Your task to perform on an android device: Open battery settings Image 0: 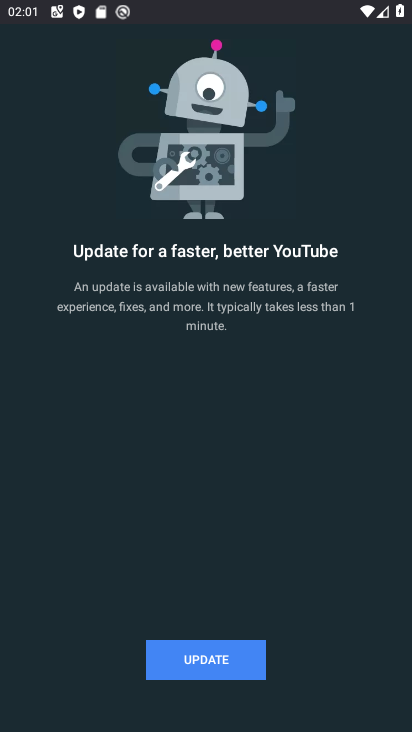
Step 0: press home button
Your task to perform on an android device: Open battery settings Image 1: 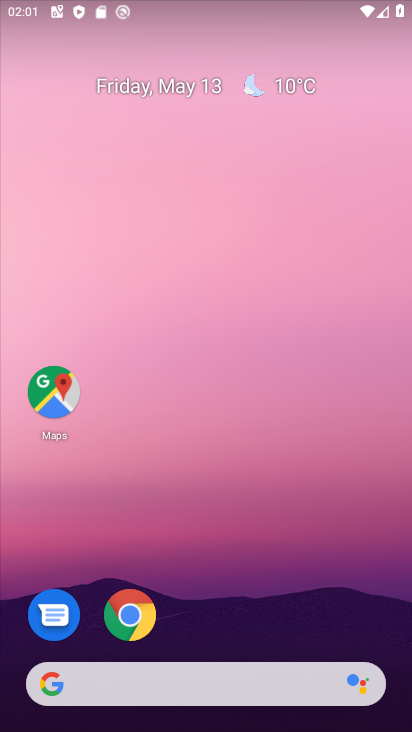
Step 1: drag from (213, 536) to (31, 128)
Your task to perform on an android device: Open battery settings Image 2: 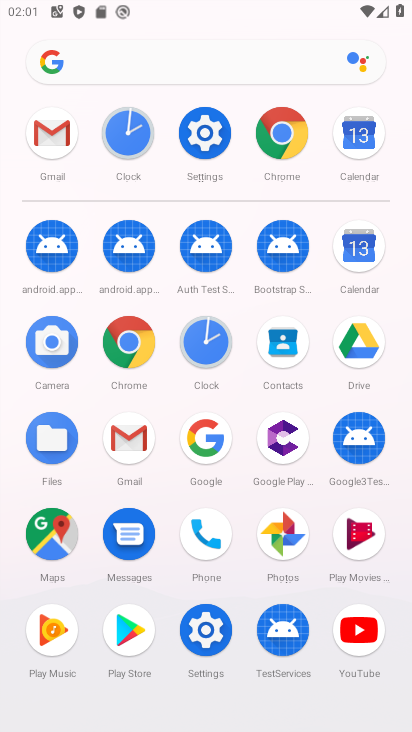
Step 2: click (221, 133)
Your task to perform on an android device: Open battery settings Image 3: 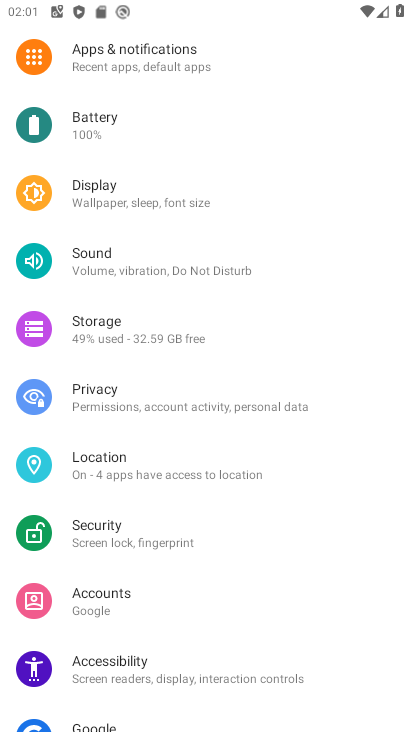
Step 3: click (110, 132)
Your task to perform on an android device: Open battery settings Image 4: 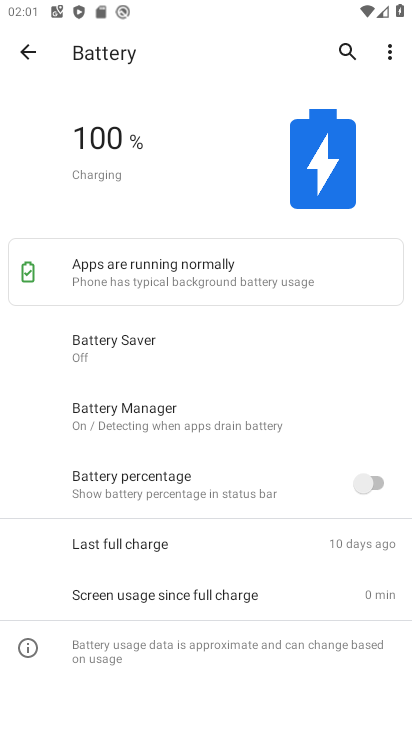
Step 4: task complete